Your task to perform on an android device: turn on the 12-hour format for clock Image 0: 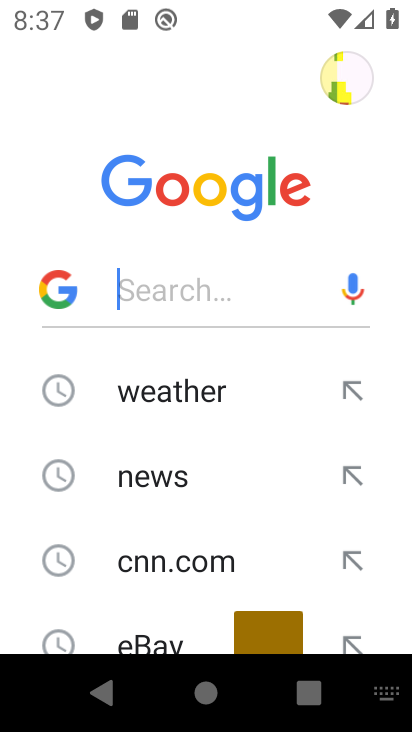
Step 0: press home button
Your task to perform on an android device: turn on the 12-hour format for clock Image 1: 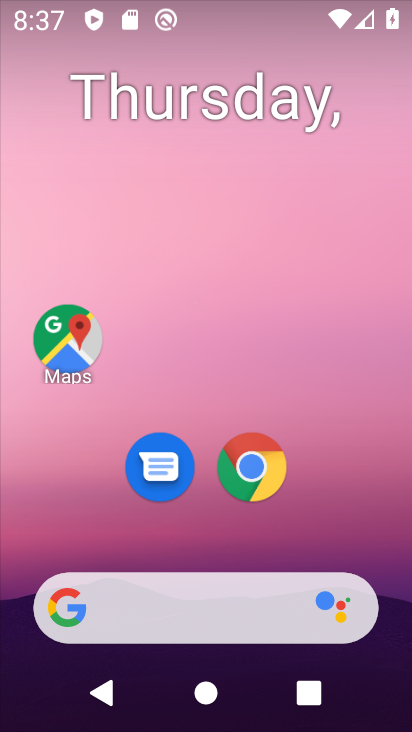
Step 1: drag from (349, 538) to (325, 44)
Your task to perform on an android device: turn on the 12-hour format for clock Image 2: 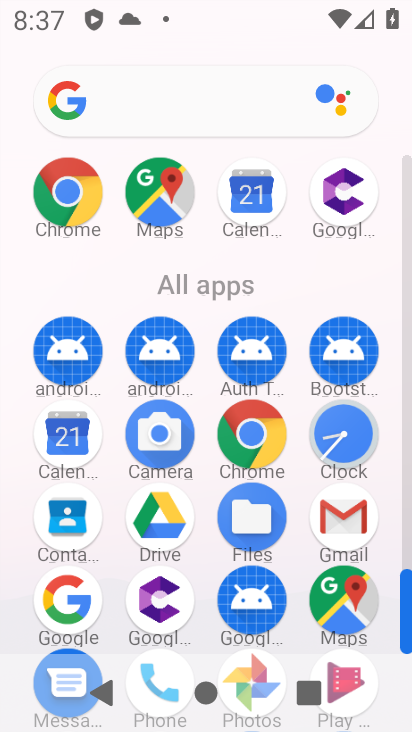
Step 2: click (342, 435)
Your task to perform on an android device: turn on the 12-hour format for clock Image 3: 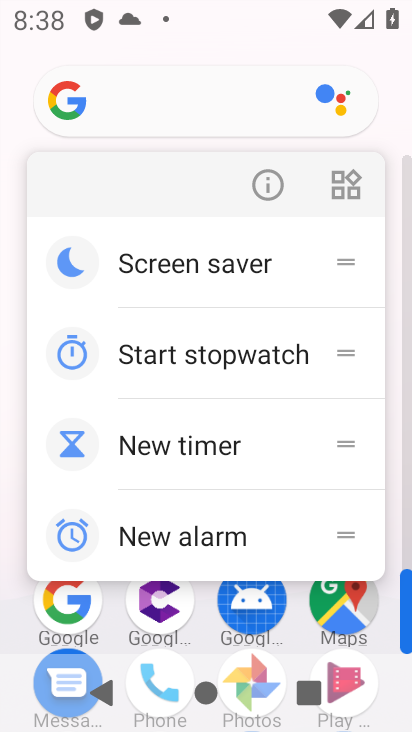
Step 3: click (398, 429)
Your task to perform on an android device: turn on the 12-hour format for clock Image 4: 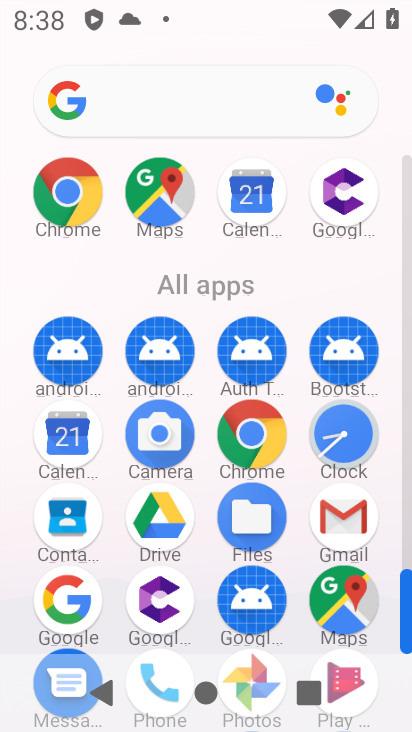
Step 4: click (356, 437)
Your task to perform on an android device: turn on the 12-hour format for clock Image 5: 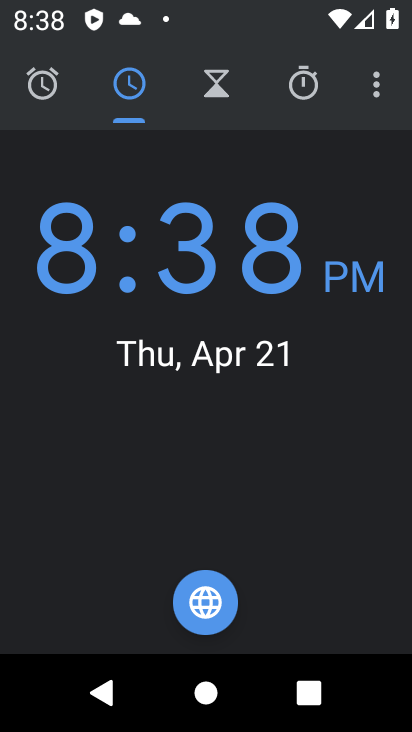
Step 5: click (374, 76)
Your task to perform on an android device: turn on the 12-hour format for clock Image 6: 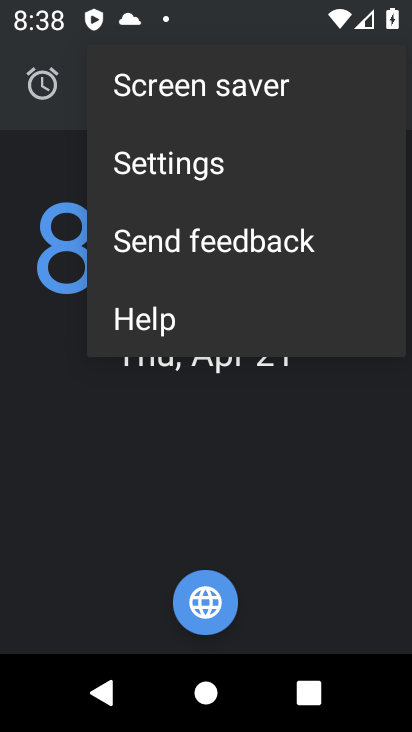
Step 6: click (298, 167)
Your task to perform on an android device: turn on the 12-hour format for clock Image 7: 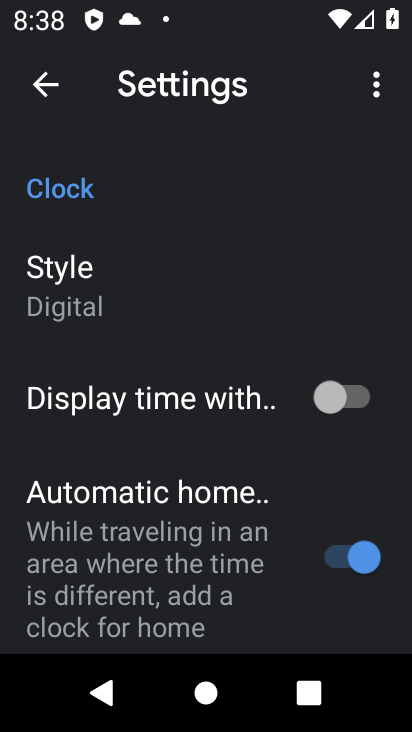
Step 7: drag from (212, 450) to (201, 288)
Your task to perform on an android device: turn on the 12-hour format for clock Image 8: 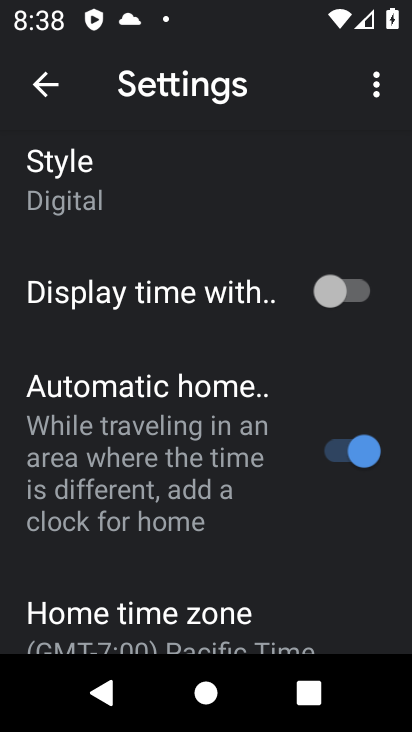
Step 8: drag from (190, 437) to (187, 267)
Your task to perform on an android device: turn on the 12-hour format for clock Image 9: 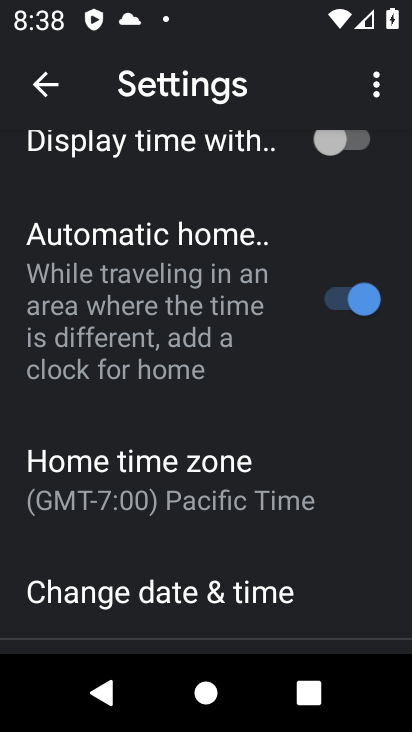
Step 9: drag from (188, 499) to (186, 303)
Your task to perform on an android device: turn on the 12-hour format for clock Image 10: 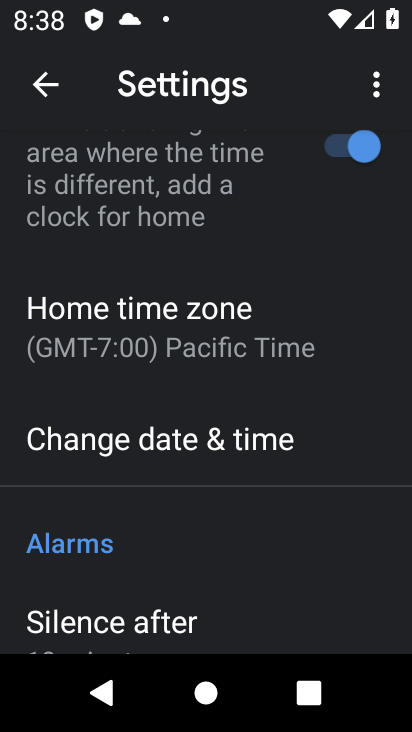
Step 10: click (161, 428)
Your task to perform on an android device: turn on the 12-hour format for clock Image 11: 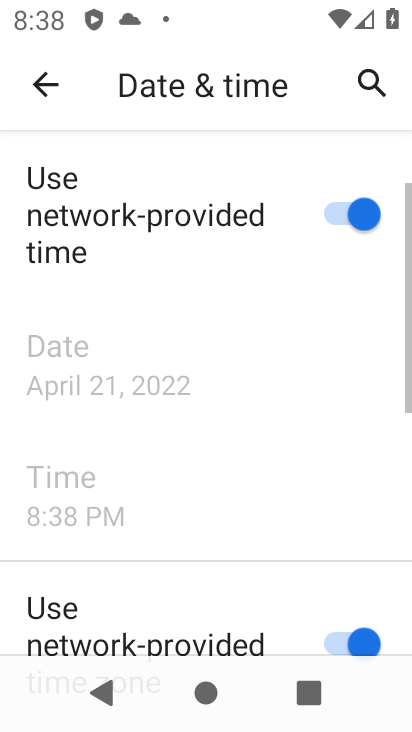
Step 11: task complete